Your task to perform on an android device: Play the last video I watched on Youtube Image 0: 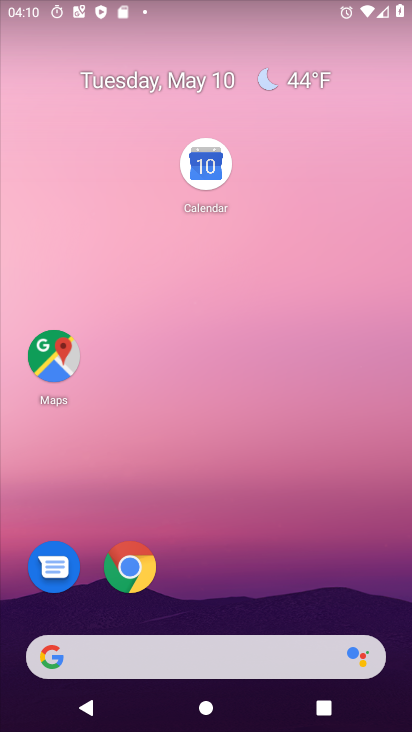
Step 0: drag from (238, 563) to (292, 40)
Your task to perform on an android device: Play the last video I watched on Youtube Image 1: 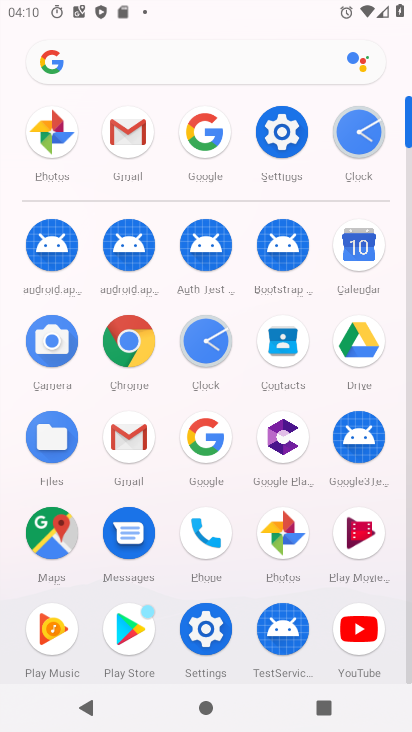
Step 1: click (355, 630)
Your task to perform on an android device: Play the last video I watched on Youtube Image 2: 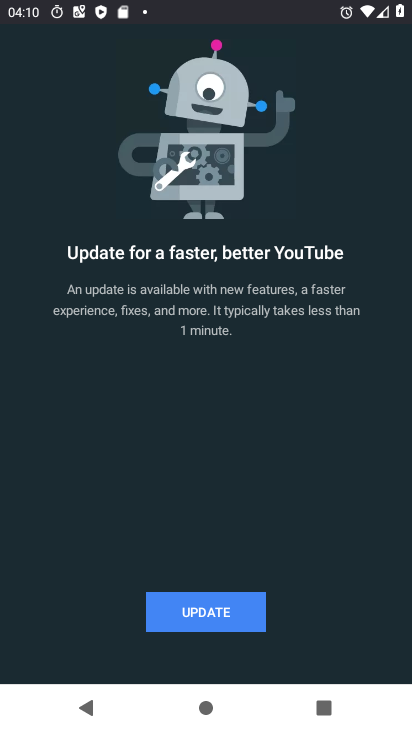
Step 2: click (205, 613)
Your task to perform on an android device: Play the last video I watched on Youtube Image 3: 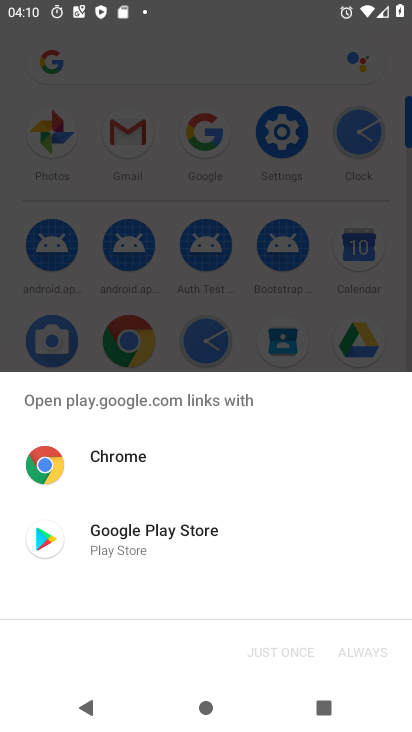
Step 3: click (162, 531)
Your task to perform on an android device: Play the last video I watched on Youtube Image 4: 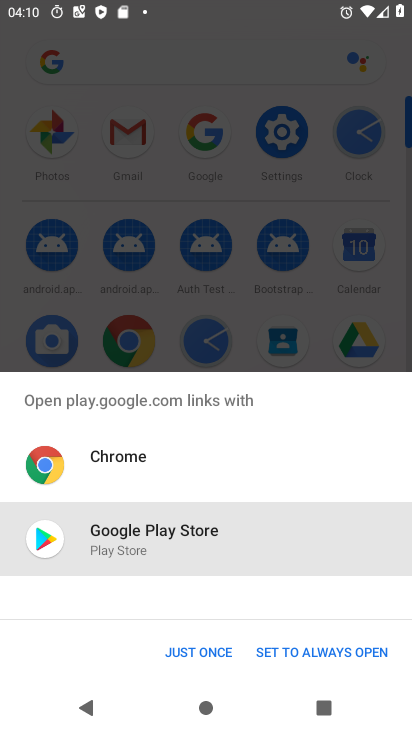
Step 4: click (209, 662)
Your task to perform on an android device: Play the last video I watched on Youtube Image 5: 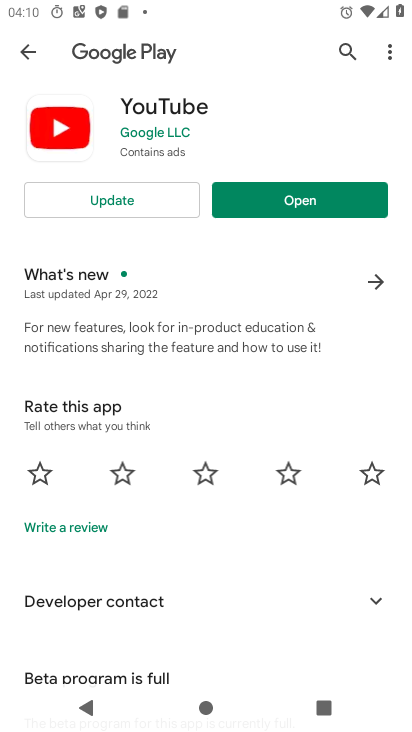
Step 5: click (201, 209)
Your task to perform on an android device: Play the last video I watched on Youtube Image 6: 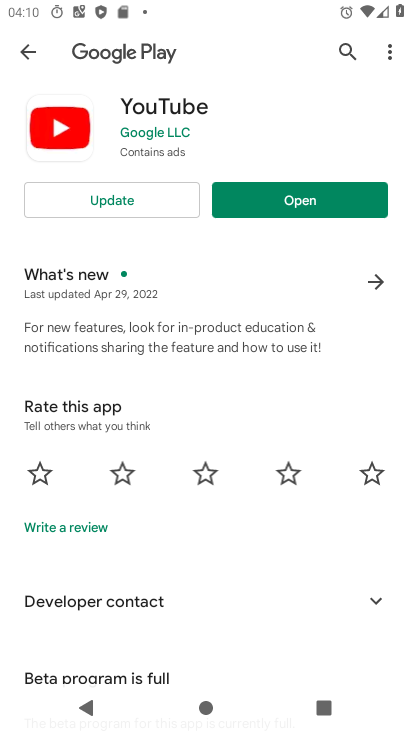
Step 6: click (116, 204)
Your task to perform on an android device: Play the last video I watched on Youtube Image 7: 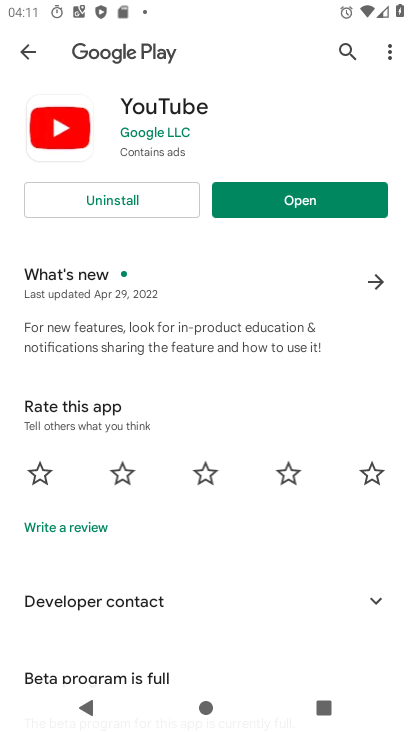
Step 7: click (246, 207)
Your task to perform on an android device: Play the last video I watched on Youtube Image 8: 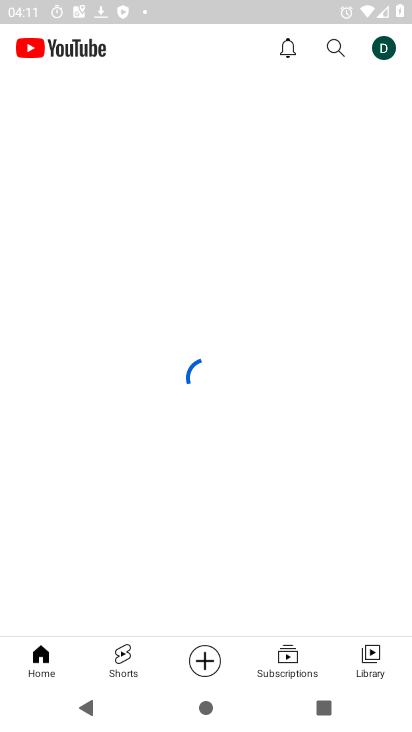
Step 8: click (338, 45)
Your task to perform on an android device: Play the last video I watched on Youtube Image 9: 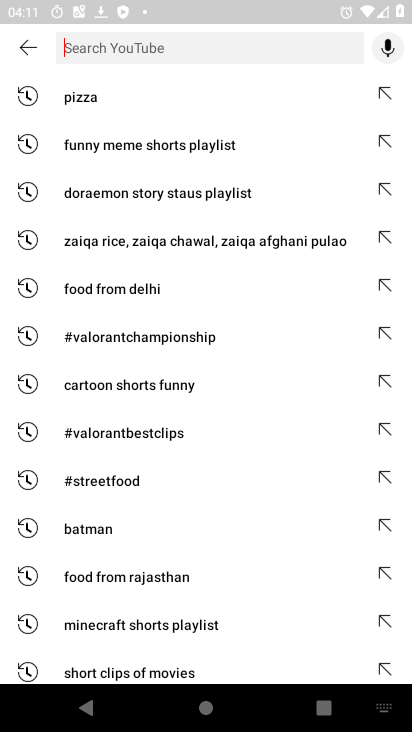
Step 9: task complete